Your task to perform on an android device: install app "YouTube Kids" Image 0: 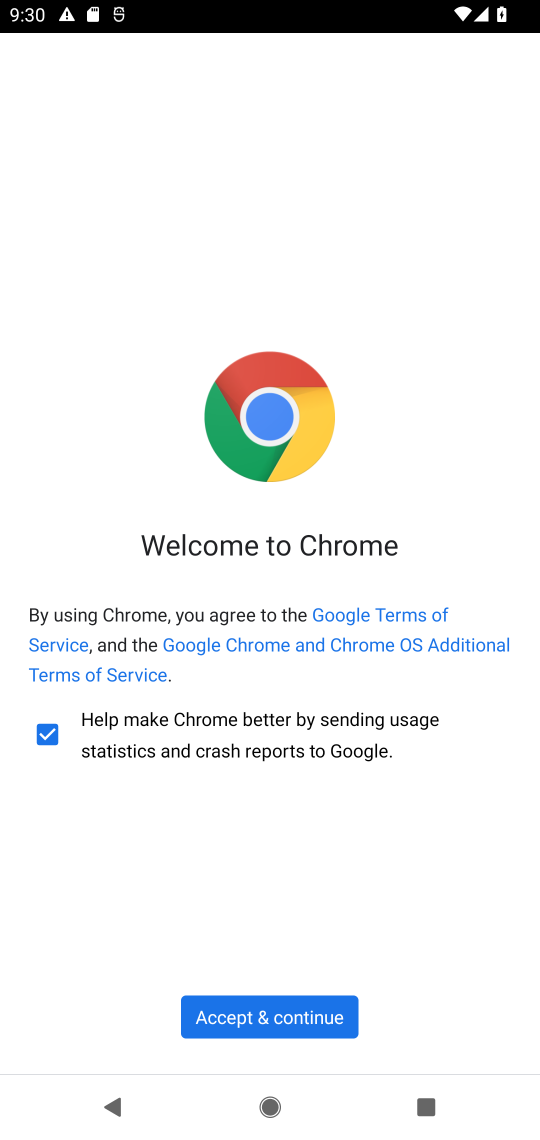
Step 0: press home button
Your task to perform on an android device: install app "YouTube Kids" Image 1: 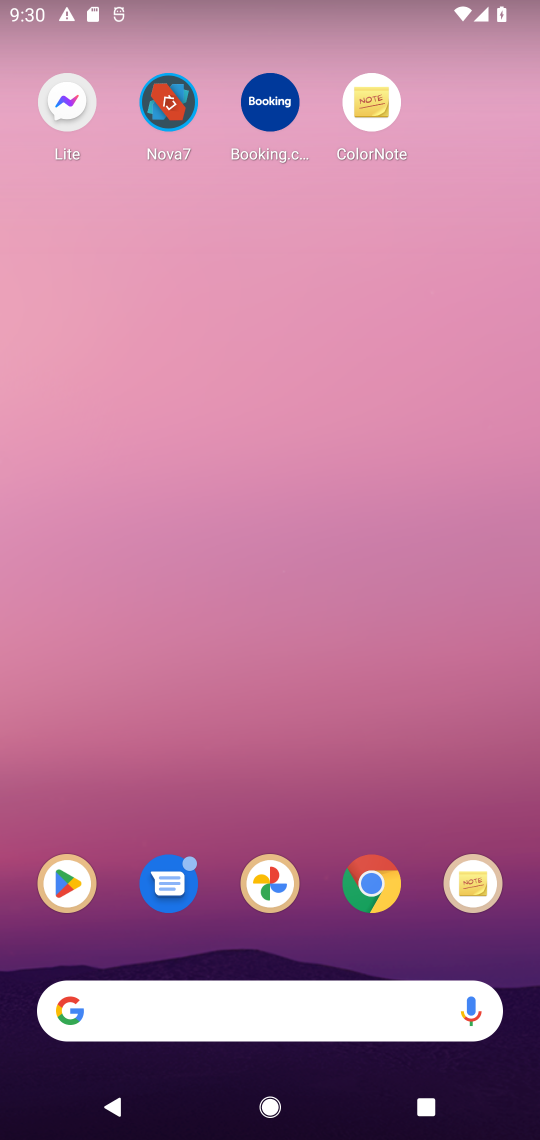
Step 1: click (69, 896)
Your task to perform on an android device: install app "YouTube Kids" Image 2: 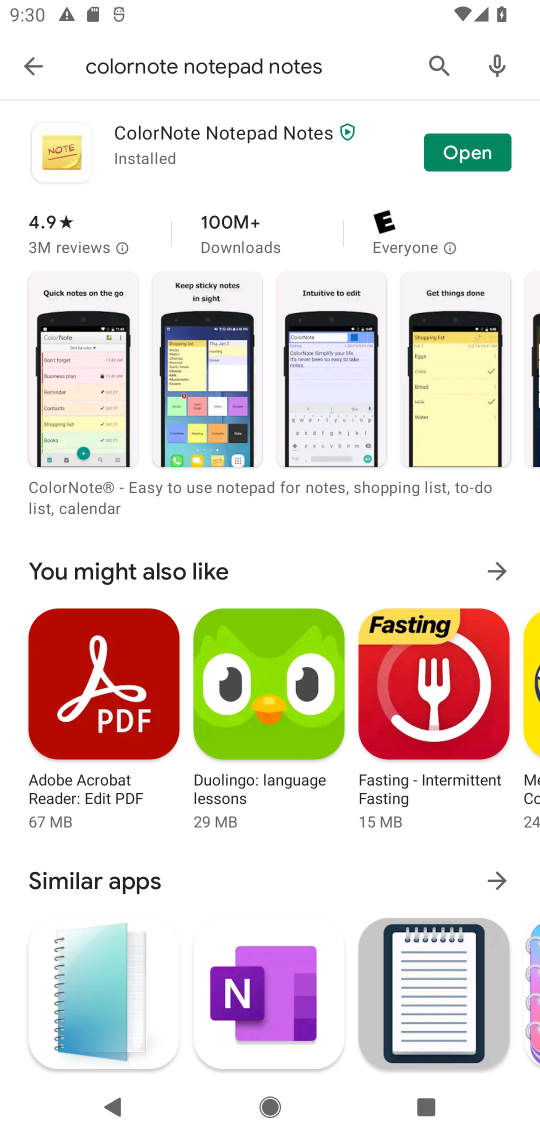
Step 2: click (202, 70)
Your task to perform on an android device: install app "YouTube Kids" Image 3: 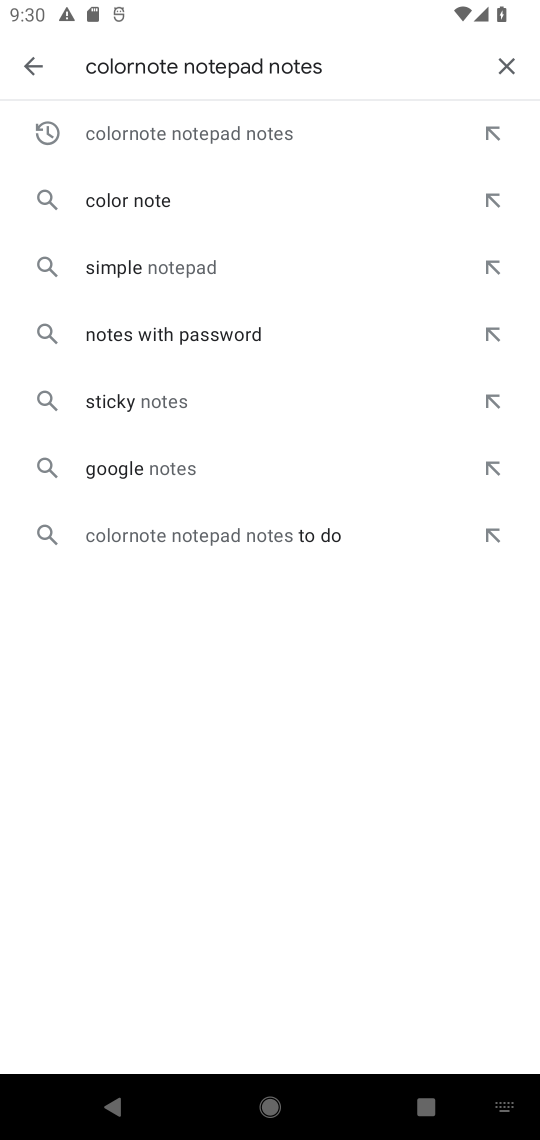
Step 3: click (509, 64)
Your task to perform on an android device: install app "YouTube Kids" Image 4: 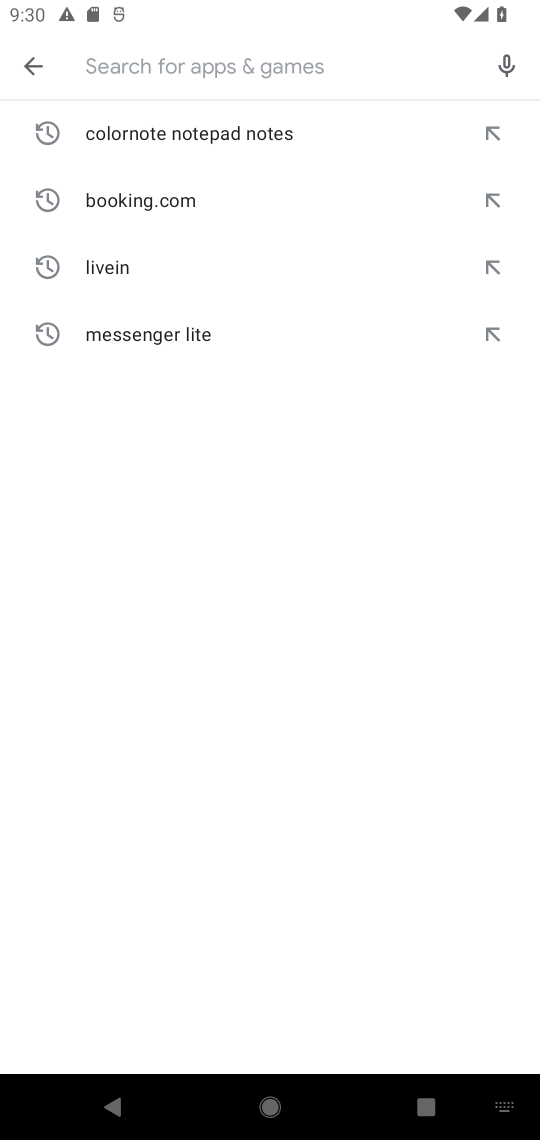
Step 4: type "Youtube Kids"
Your task to perform on an android device: install app "YouTube Kids" Image 5: 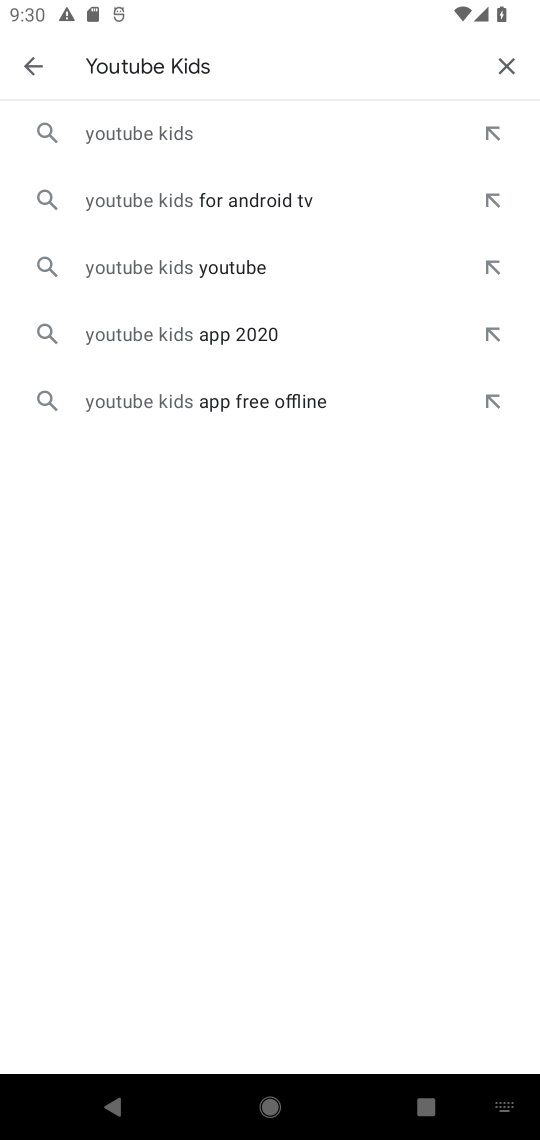
Step 5: click (176, 135)
Your task to perform on an android device: install app "YouTube Kids" Image 6: 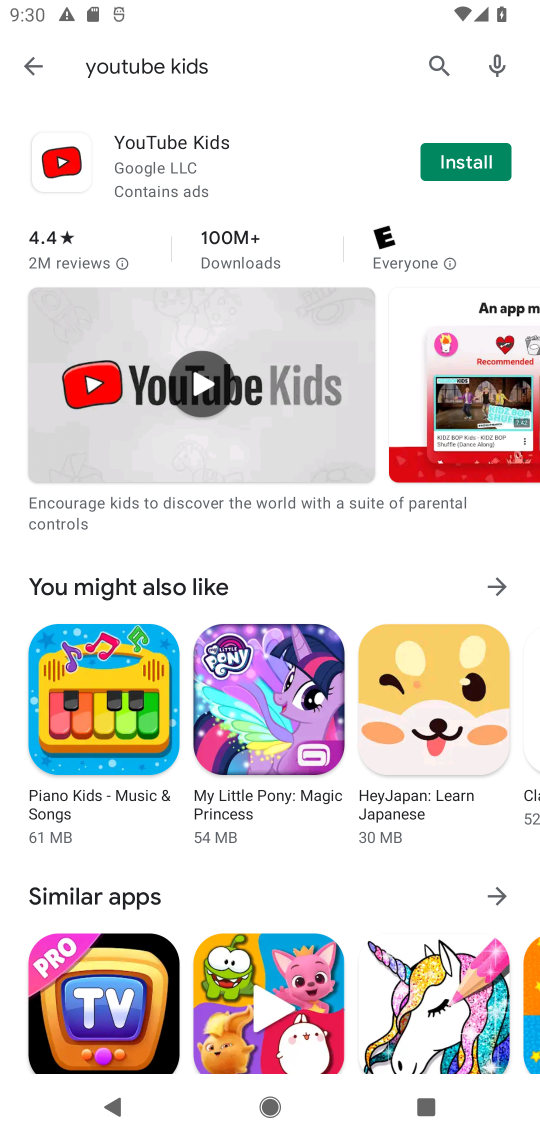
Step 6: click (460, 154)
Your task to perform on an android device: install app "YouTube Kids" Image 7: 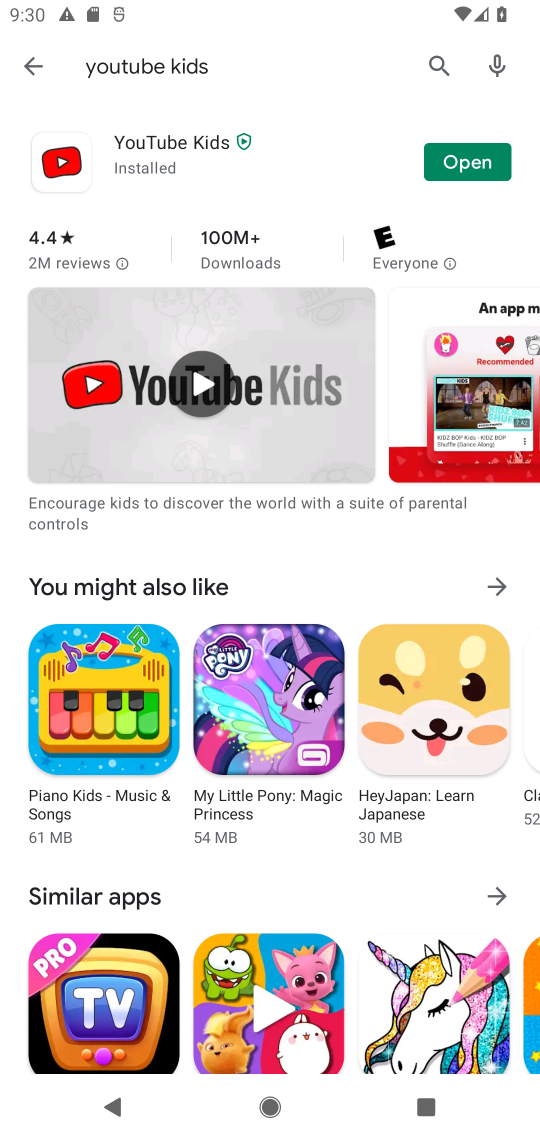
Step 7: task complete